Your task to perform on an android device: change keyboard looks Image 0: 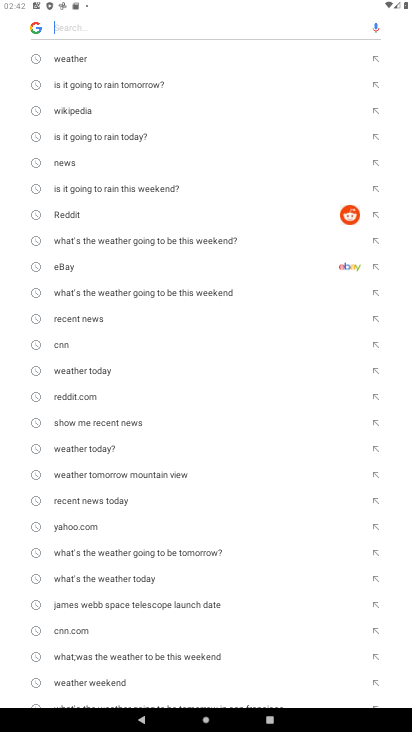
Step 0: press home button
Your task to perform on an android device: change keyboard looks Image 1: 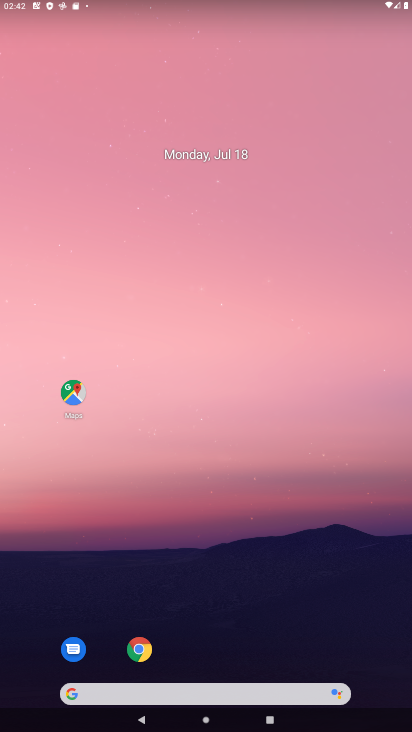
Step 1: drag from (182, 716) to (165, 64)
Your task to perform on an android device: change keyboard looks Image 2: 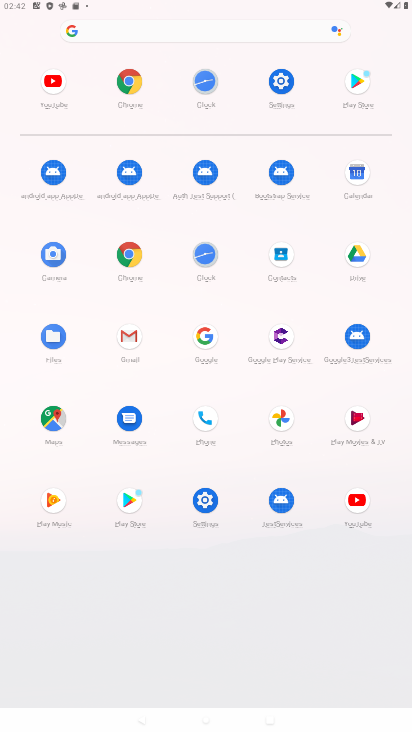
Step 2: click (276, 84)
Your task to perform on an android device: change keyboard looks Image 3: 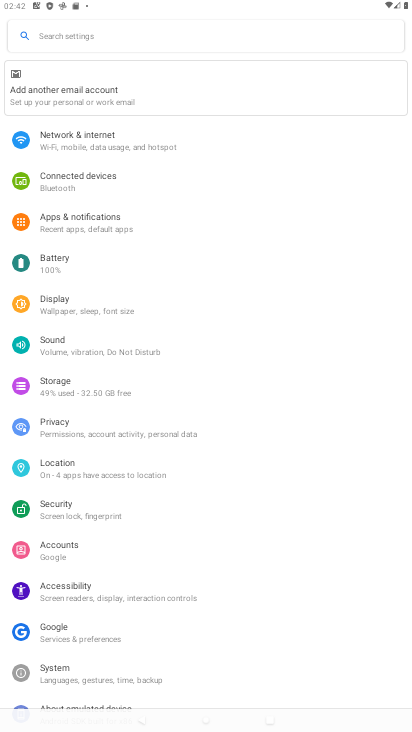
Step 3: drag from (211, 665) to (207, 24)
Your task to perform on an android device: change keyboard looks Image 4: 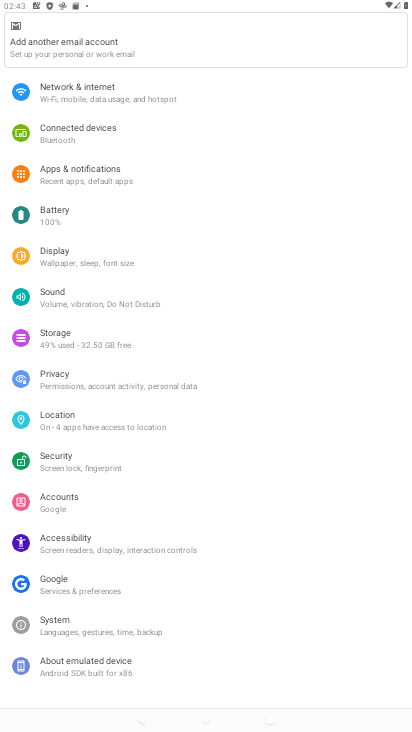
Step 4: click (115, 630)
Your task to perform on an android device: change keyboard looks Image 5: 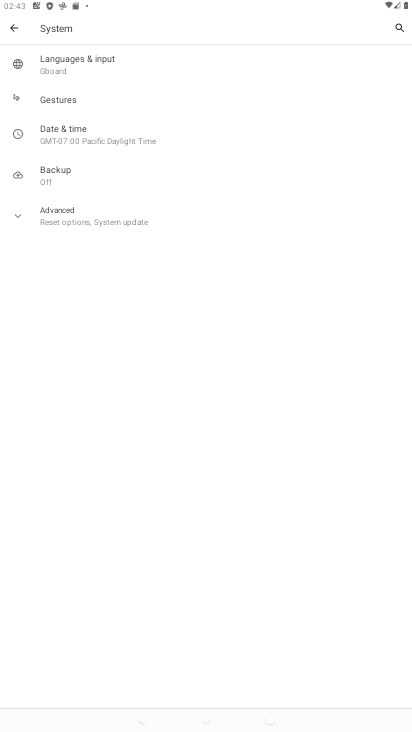
Step 5: click (74, 63)
Your task to perform on an android device: change keyboard looks Image 6: 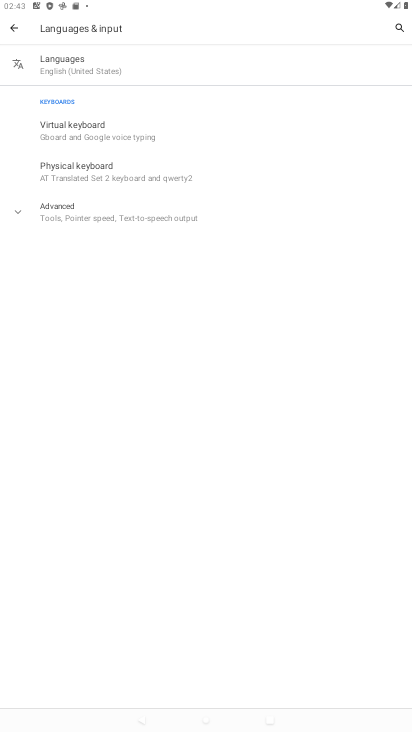
Step 6: click (125, 122)
Your task to perform on an android device: change keyboard looks Image 7: 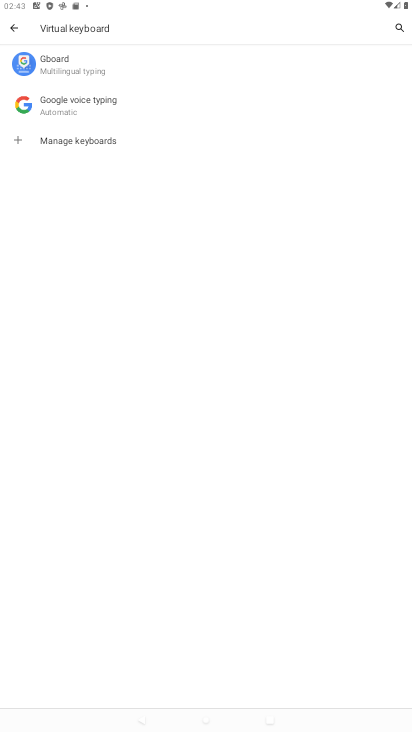
Step 7: click (73, 49)
Your task to perform on an android device: change keyboard looks Image 8: 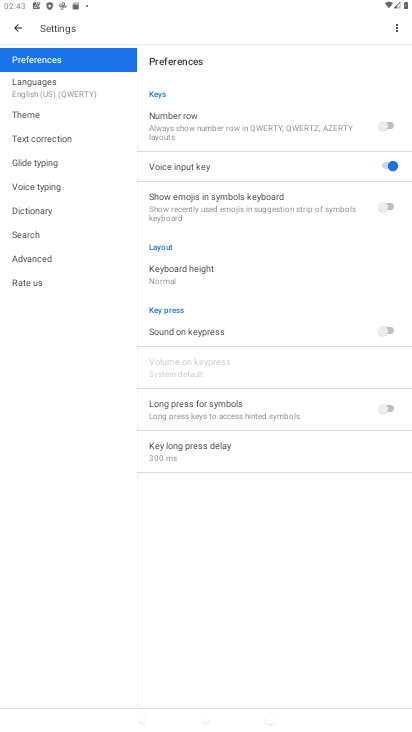
Step 8: click (34, 117)
Your task to perform on an android device: change keyboard looks Image 9: 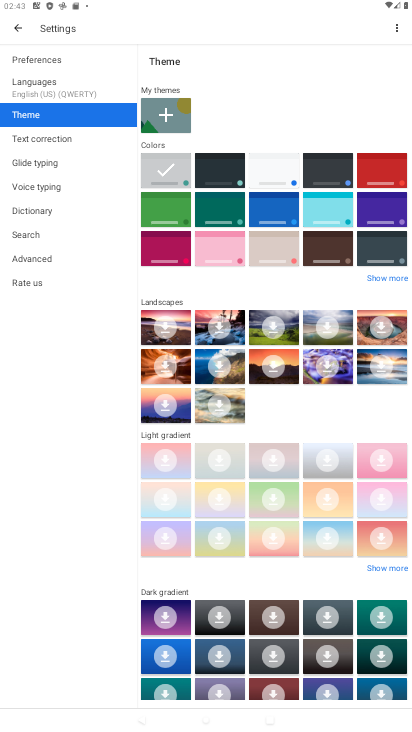
Step 9: click (333, 206)
Your task to perform on an android device: change keyboard looks Image 10: 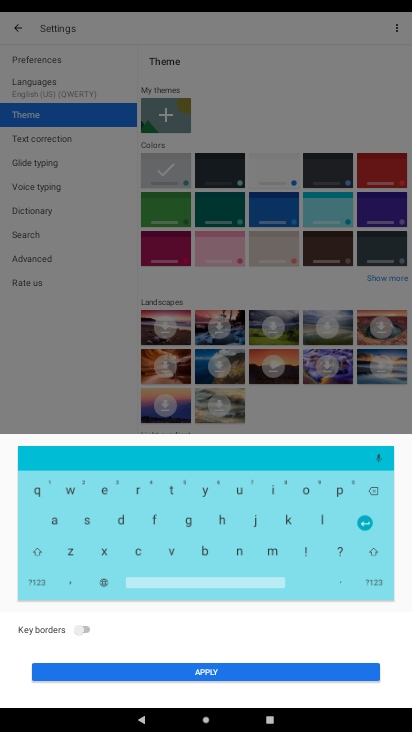
Step 10: click (266, 671)
Your task to perform on an android device: change keyboard looks Image 11: 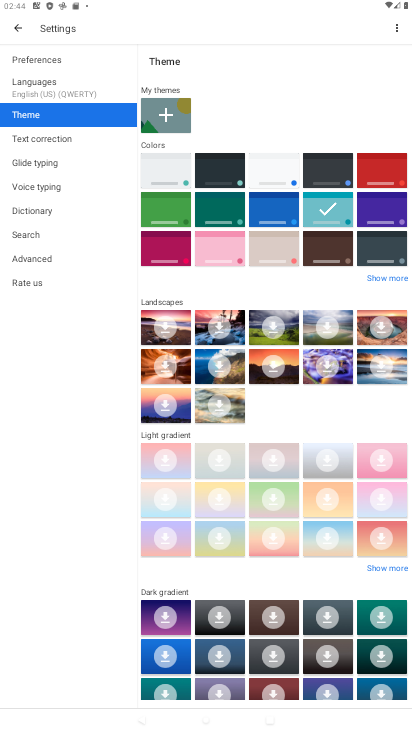
Step 11: task complete